Your task to perform on an android device: toggle airplane mode Image 0: 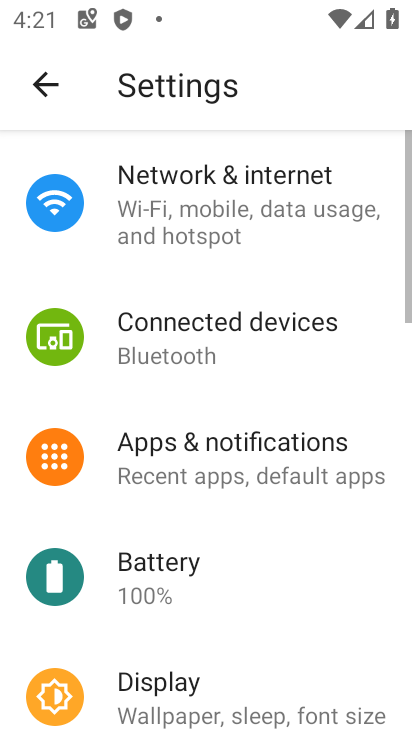
Step 0: click (217, 231)
Your task to perform on an android device: toggle airplane mode Image 1: 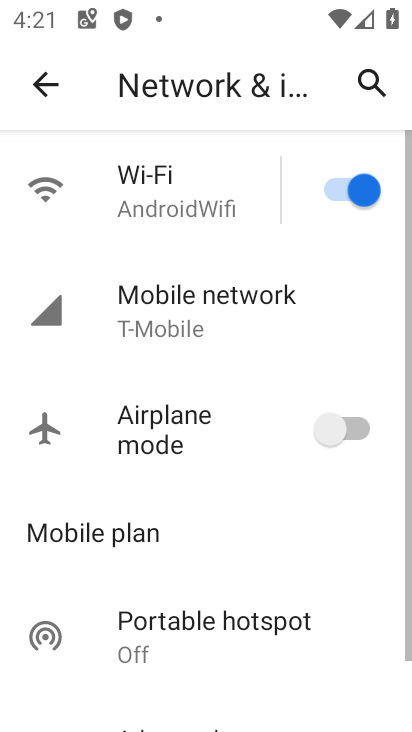
Step 1: click (242, 425)
Your task to perform on an android device: toggle airplane mode Image 2: 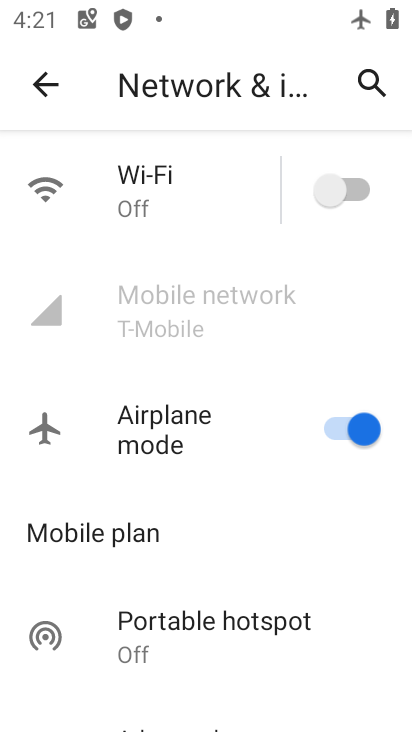
Step 2: task complete